Your task to perform on an android device: all mails in gmail Image 0: 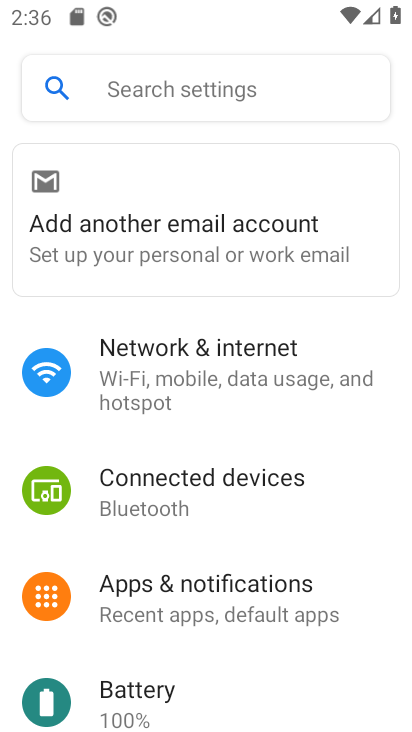
Step 0: press home button
Your task to perform on an android device: all mails in gmail Image 1: 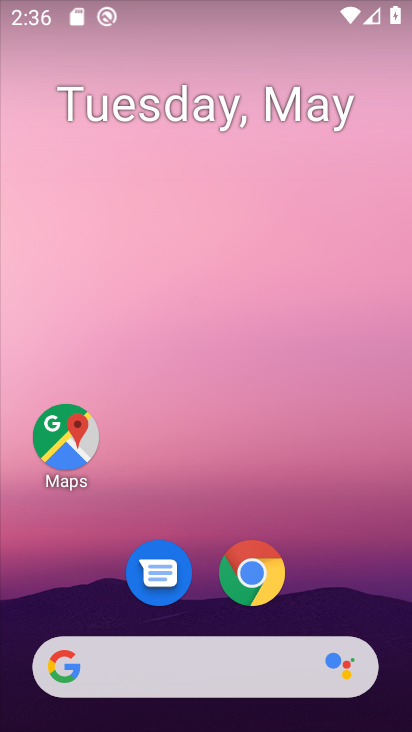
Step 1: drag from (73, 622) to (186, 99)
Your task to perform on an android device: all mails in gmail Image 2: 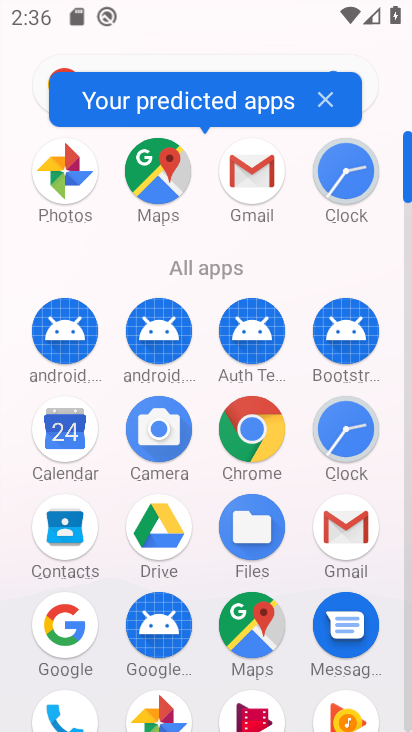
Step 2: click (340, 543)
Your task to perform on an android device: all mails in gmail Image 3: 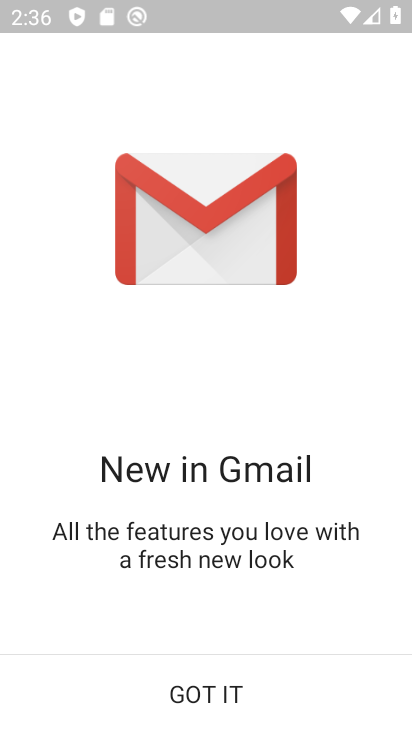
Step 3: click (235, 690)
Your task to perform on an android device: all mails in gmail Image 4: 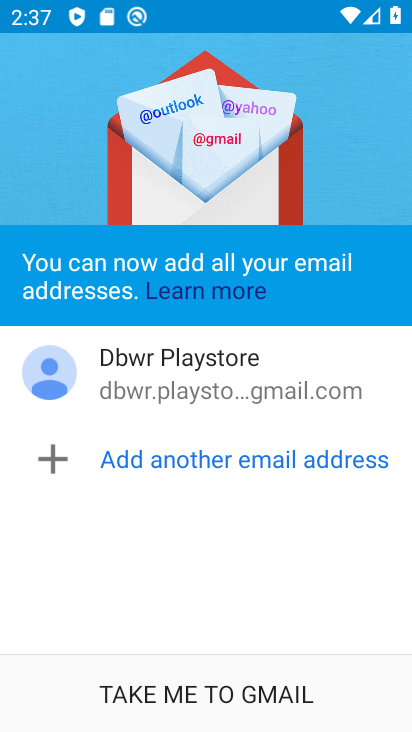
Step 4: click (277, 688)
Your task to perform on an android device: all mails in gmail Image 5: 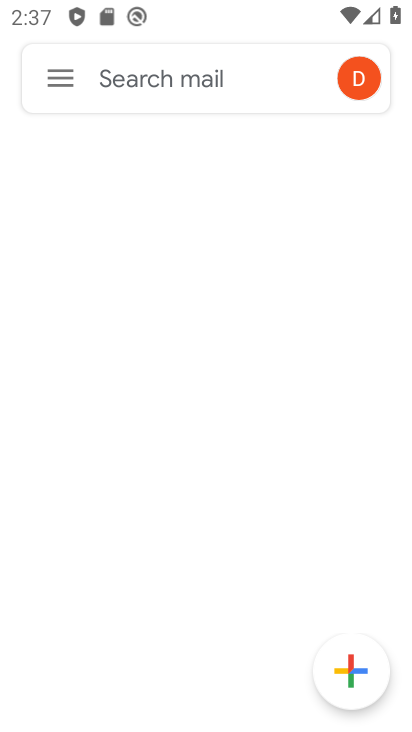
Step 5: click (75, 85)
Your task to perform on an android device: all mails in gmail Image 6: 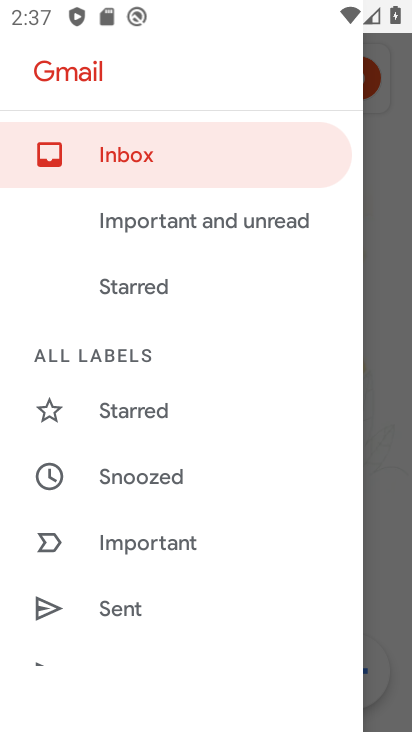
Step 6: drag from (159, 628) to (273, 141)
Your task to perform on an android device: all mails in gmail Image 7: 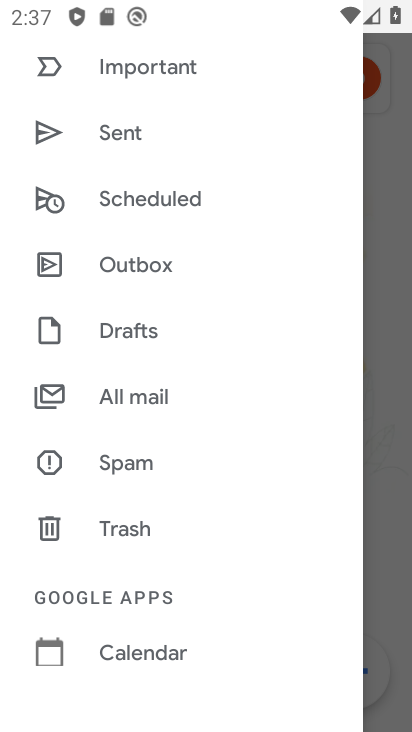
Step 7: click (192, 405)
Your task to perform on an android device: all mails in gmail Image 8: 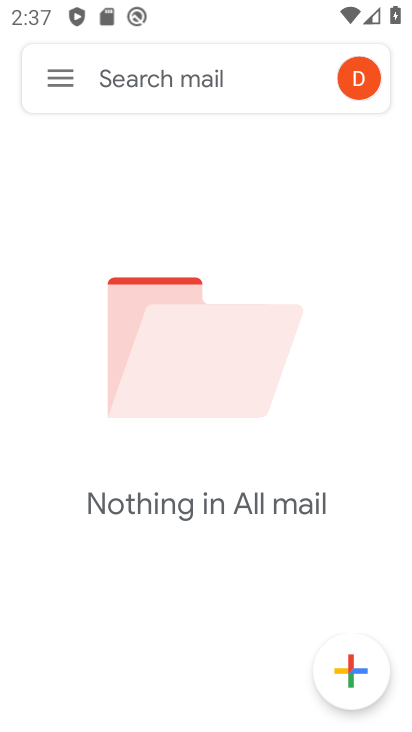
Step 8: task complete